Your task to perform on an android device: toggle sleep mode Image 0: 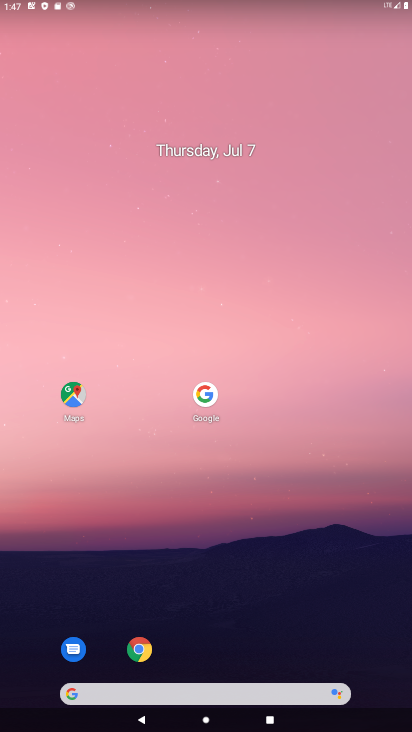
Step 0: press home button
Your task to perform on an android device: toggle sleep mode Image 1: 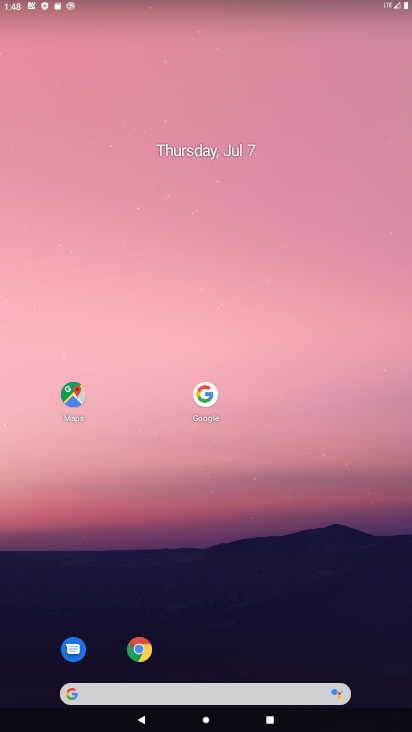
Step 1: drag from (330, 562) to (318, 83)
Your task to perform on an android device: toggle sleep mode Image 2: 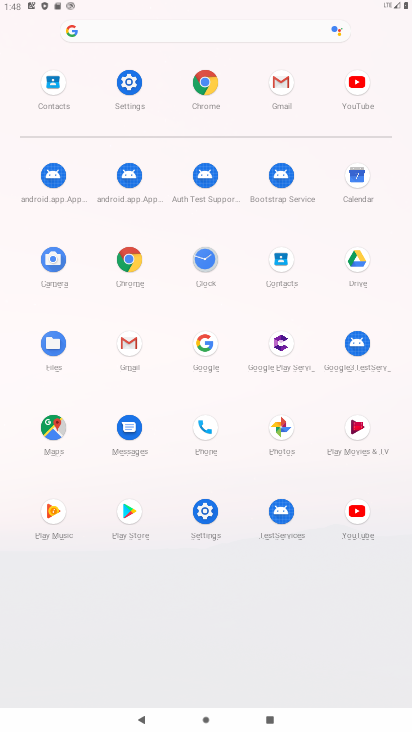
Step 2: click (127, 82)
Your task to perform on an android device: toggle sleep mode Image 3: 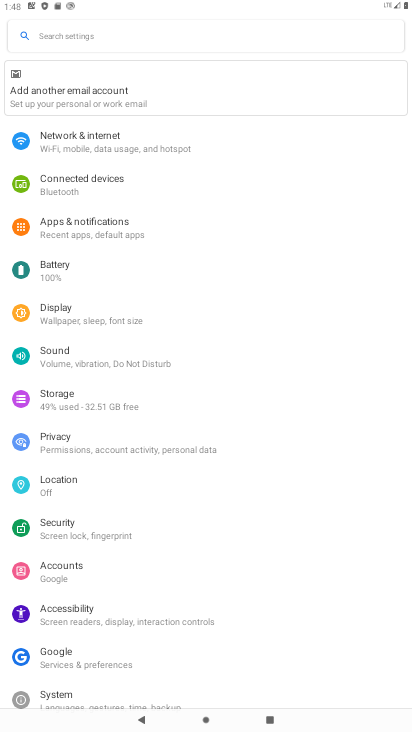
Step 3: click (95, 322)
Your task to perform on an android device: toggle sleep mode Image 4: 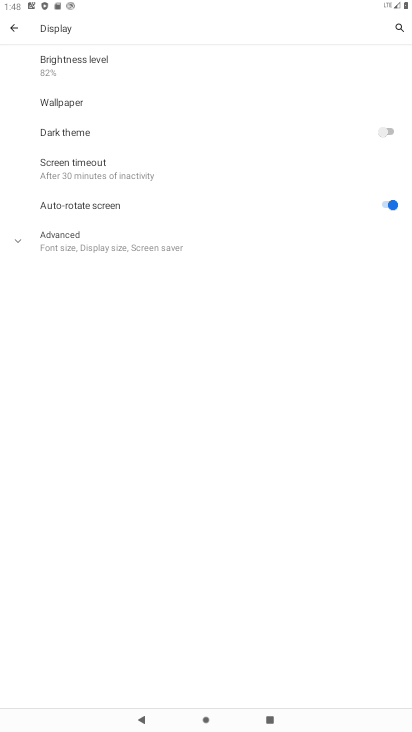
Step 4: click (54, 239)
Your task to perform on an android device: toggle sleep mode Image 5: 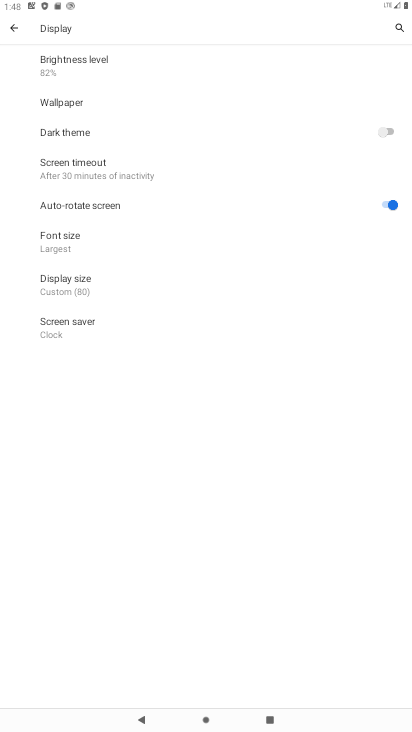
Step 5: task complete